Your task to perform on an android device: change notification settings in the gmail app Image 0: 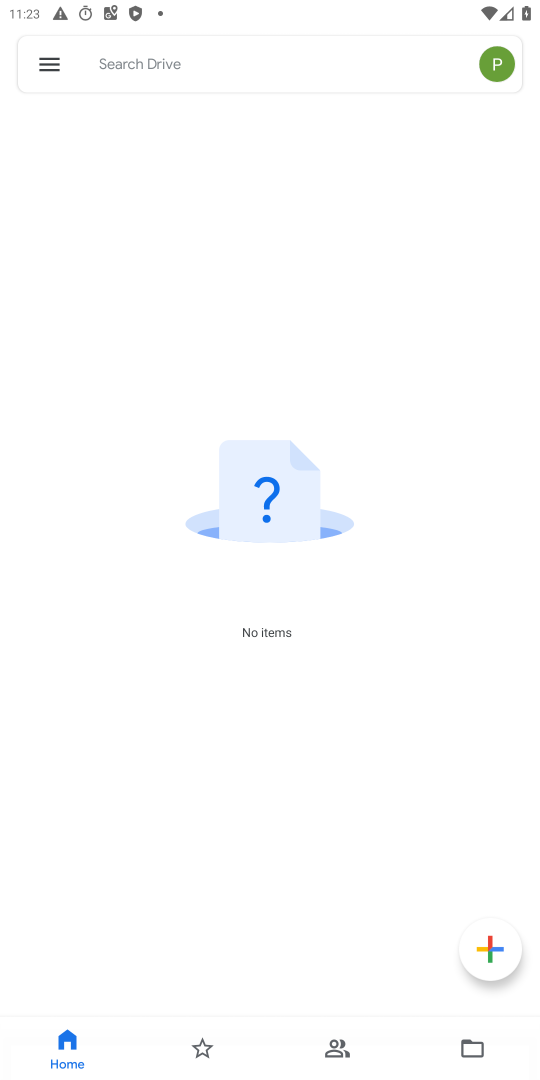
Step 0: press home button
Your task to perform on an android device: change notification settings in the gmail app Image 1: 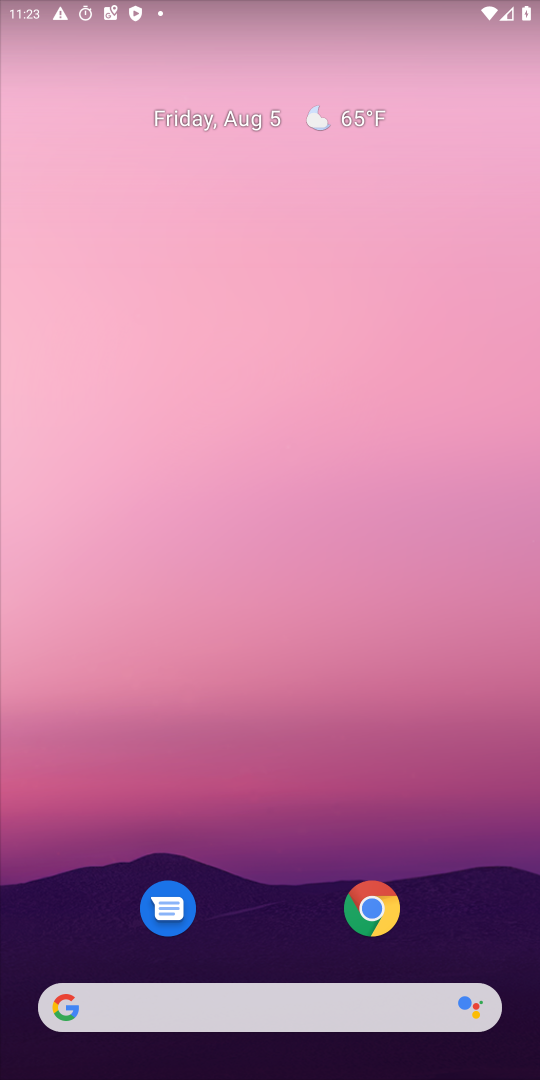
Step 1: drag from (27, 1034) to (175, 536)
Your task to perform on an android device: change notification settings in the gmail app Image 2: 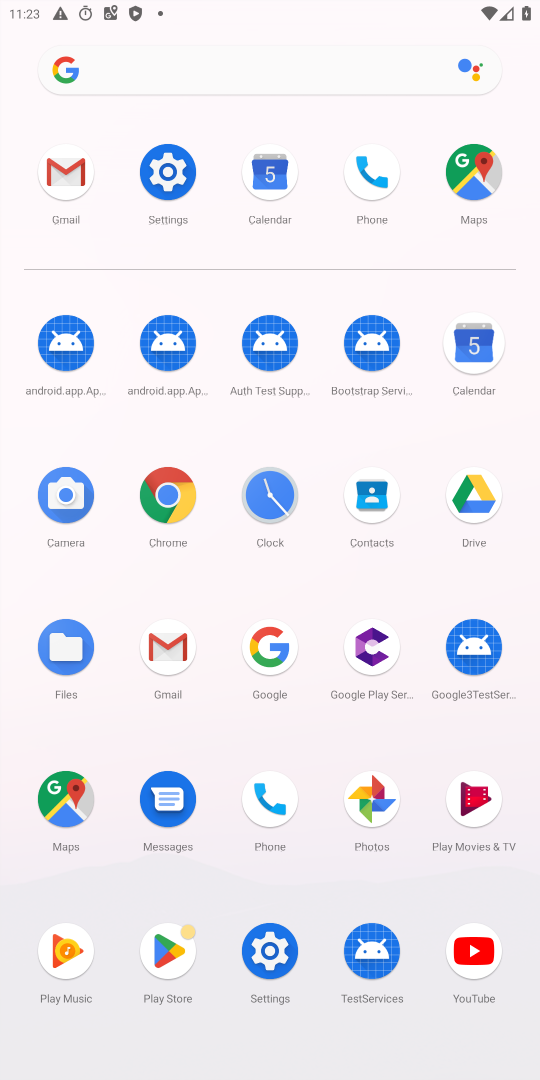
Step 2: click (279, 952)
Your task to perform on an android device: change notification settings in the gmail app Image 3: 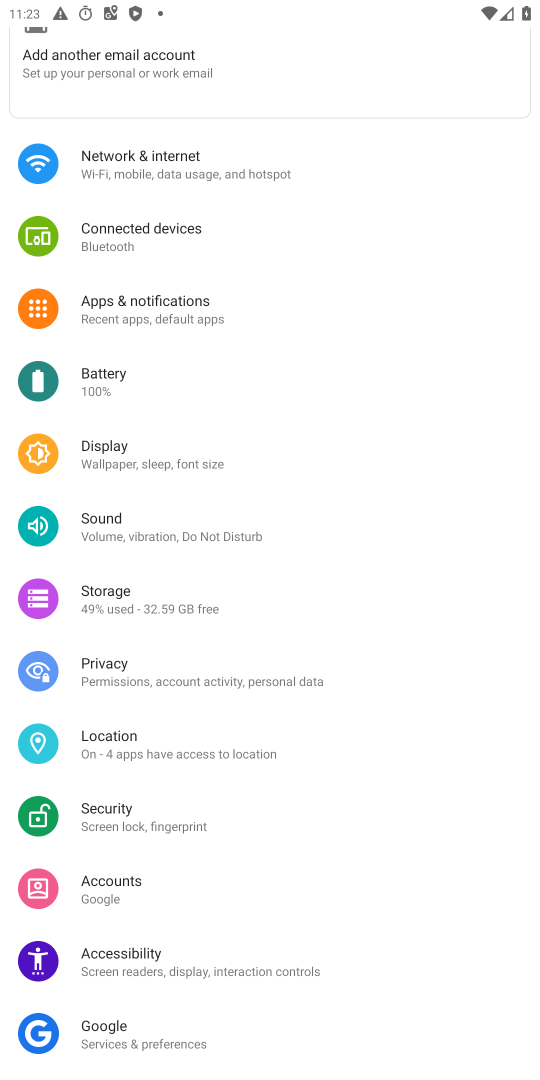
Step 3: click (193, 297)
Your task to perform on an android device: change notification settings in the gmail app Image 4: 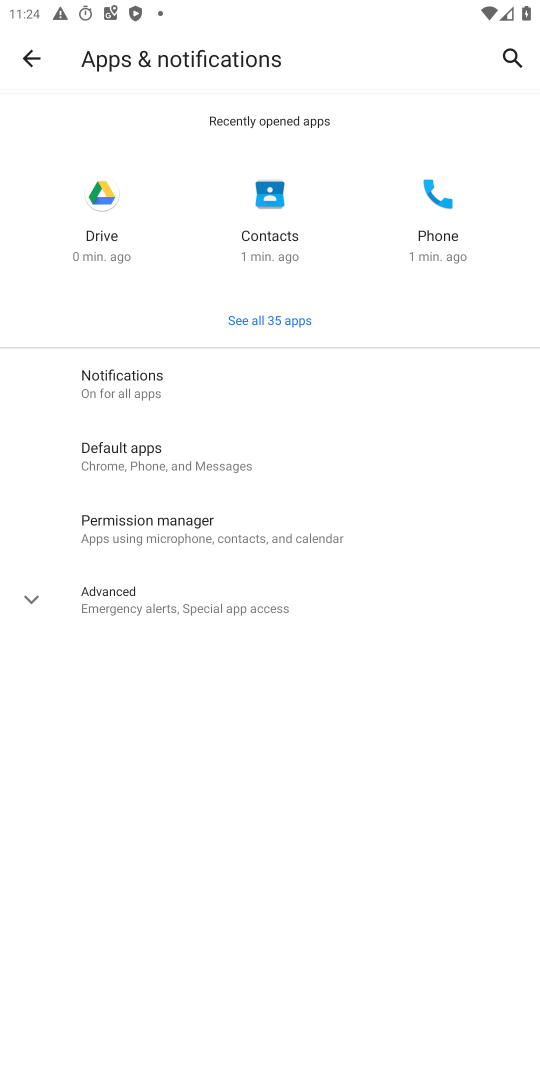
Step 4: task complete